Your task to perform on an android device: Open calendar and show me the second week of next month Image 0: 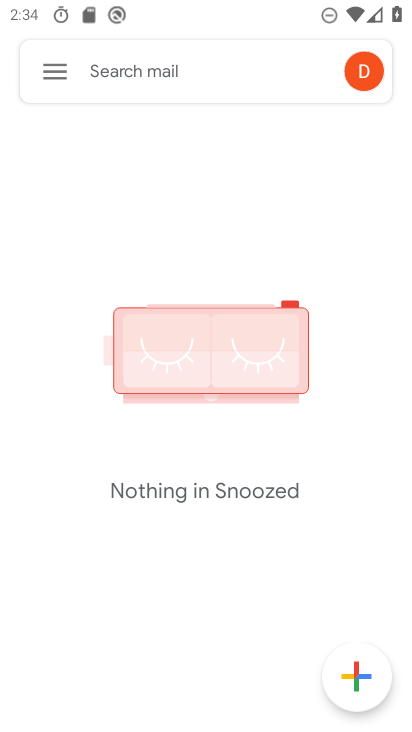
Step 0: press home button
Your task to perform on an android device: Open calendar and show me the second week of next month Image 1: 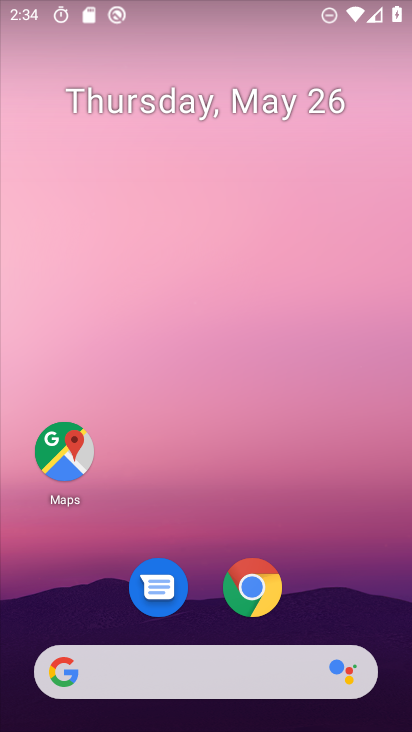
Step 1: drag from (330, 508) to (289, 167)
Your task to perform on an android device: Open calendar and show me the second week of next month Image 2: 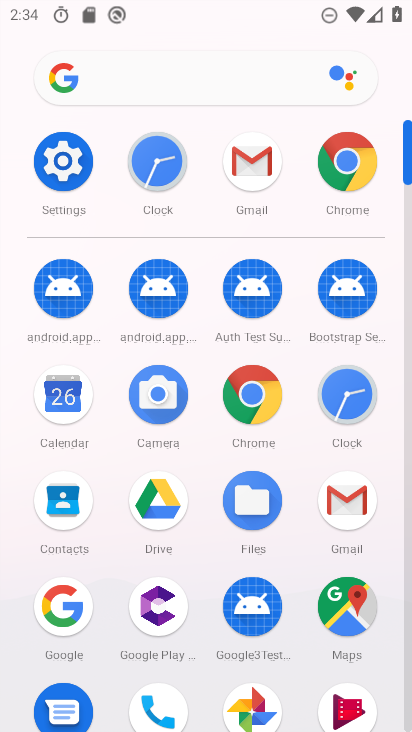
Step 2: click (56, 406)
Your task to perform on an android device: Open calendar and show me the second week of next month Image 3: 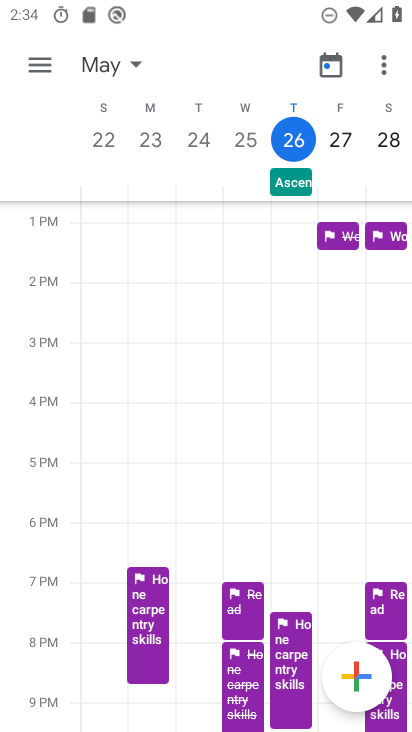
Step 3: click (104, 71)
Your task to perform on an android device: Open calendar and show me the second week of next month Image 4: 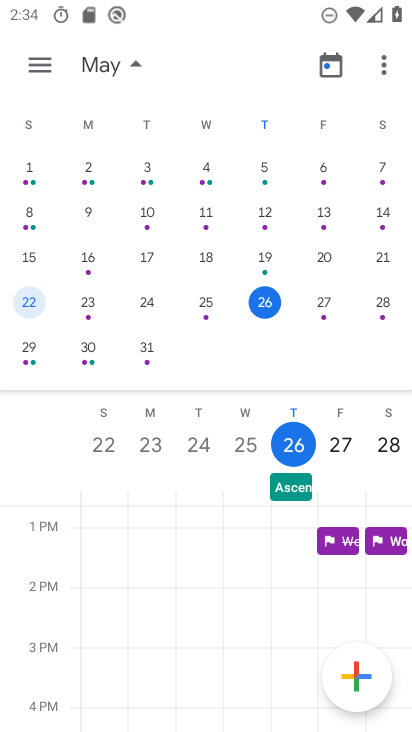
Step 4: drag from (361, 256) to (49, 241)
Your task to perform on an android device: Open calendar and show me the second week of next month Image 5: 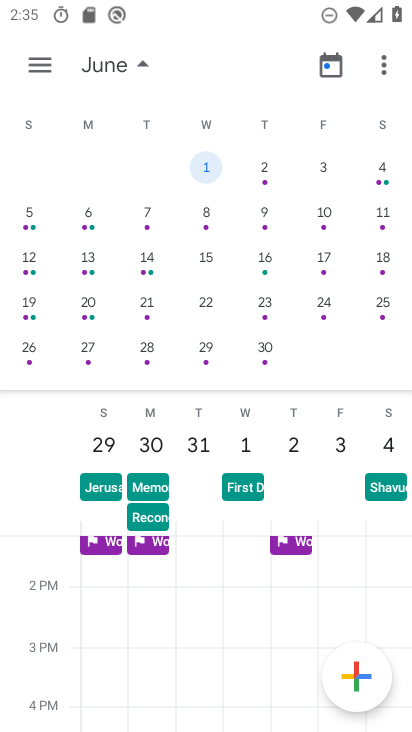
Step 5: click (31, 253)
Your task to perform on an android device: Open calendar and show me the second week of next month Image 6: 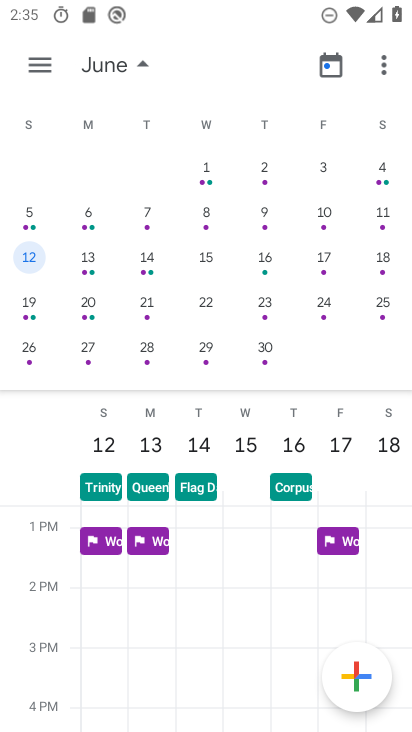
Step 6: task complete